Your task to perform on an android device: Clear the cart on newegg. Add "razer naga" to the cart on newegg, then select checkout. Image 0: 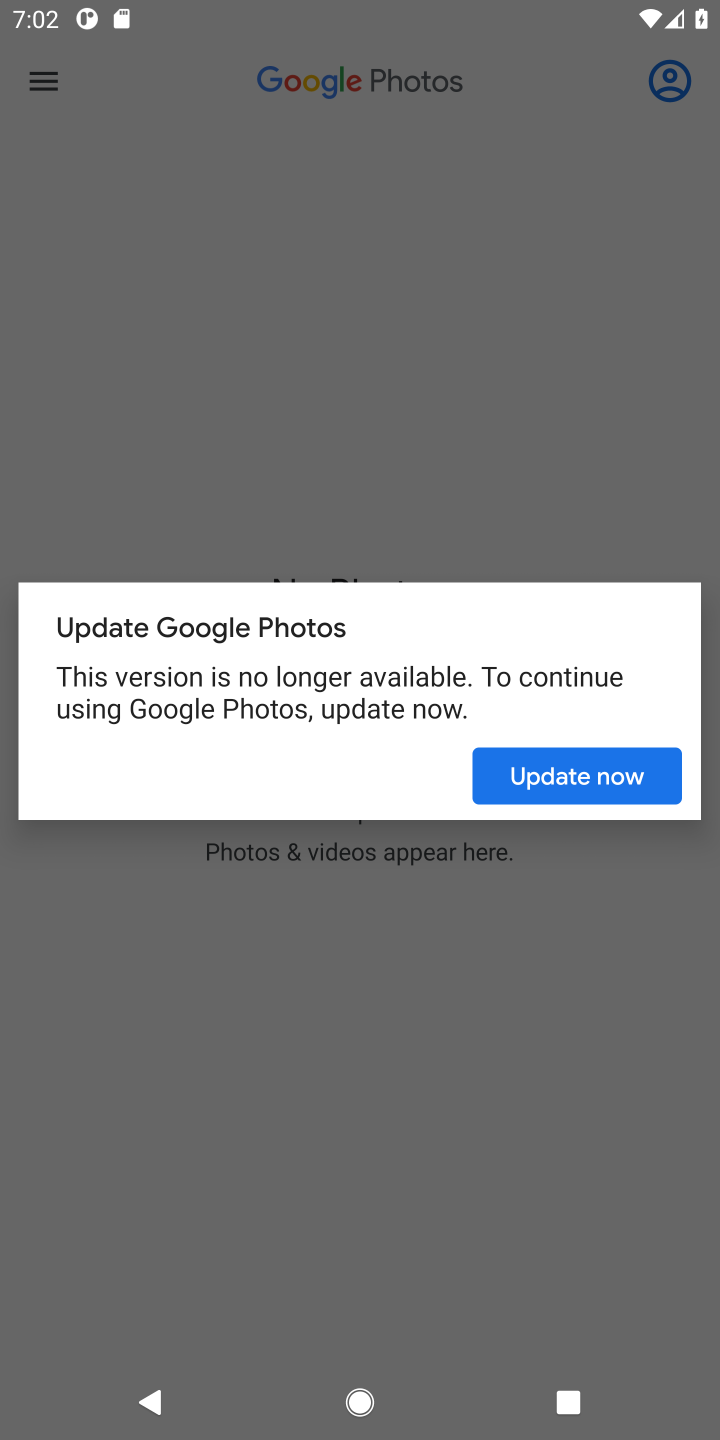
Step 0: press home button
Your task to perform on an android device: Clear the cart on newegg. Add "razer naga" to the cart on newegg, then select checkout. Image 1: 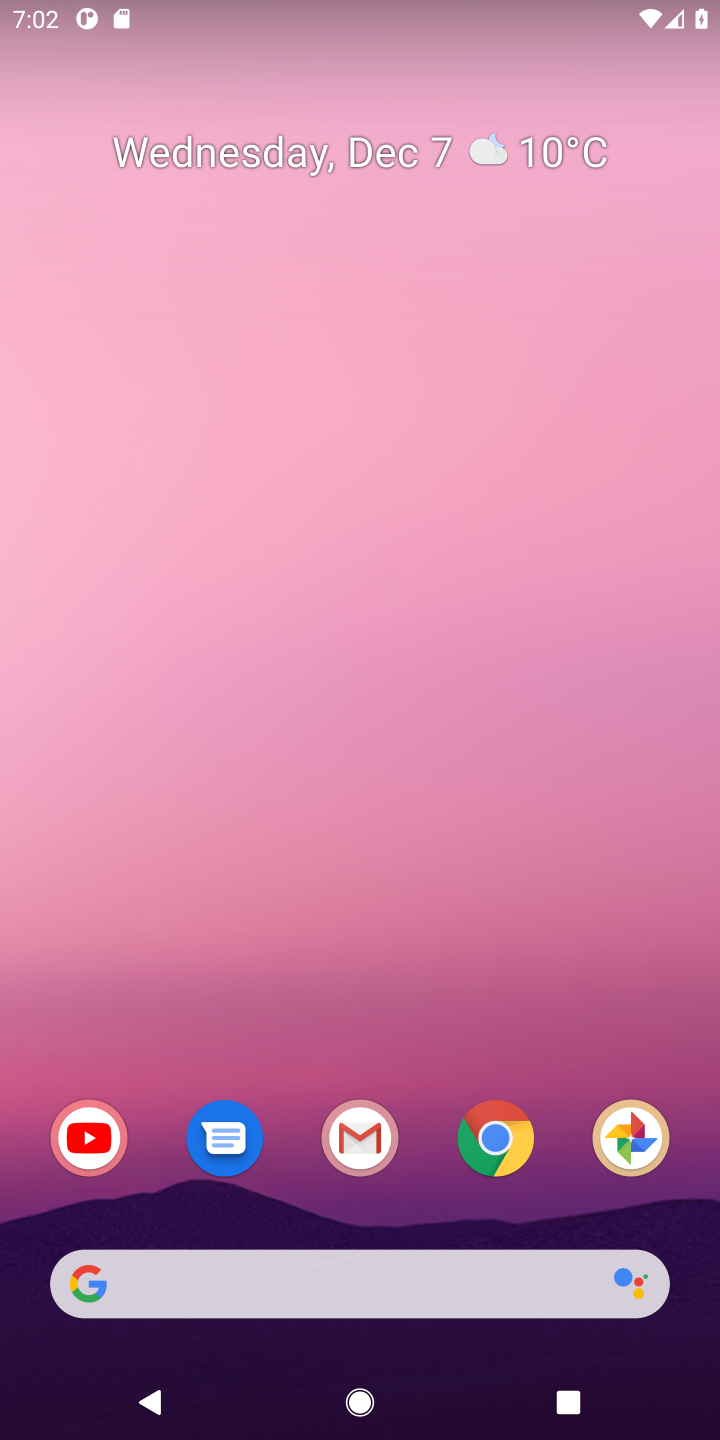
Step 1: click (141, 1275)
Your task to perform on an android device: Clear the cart on newegg. Add "razer naga" to the cart on newegg, then select checkout. Image 2: 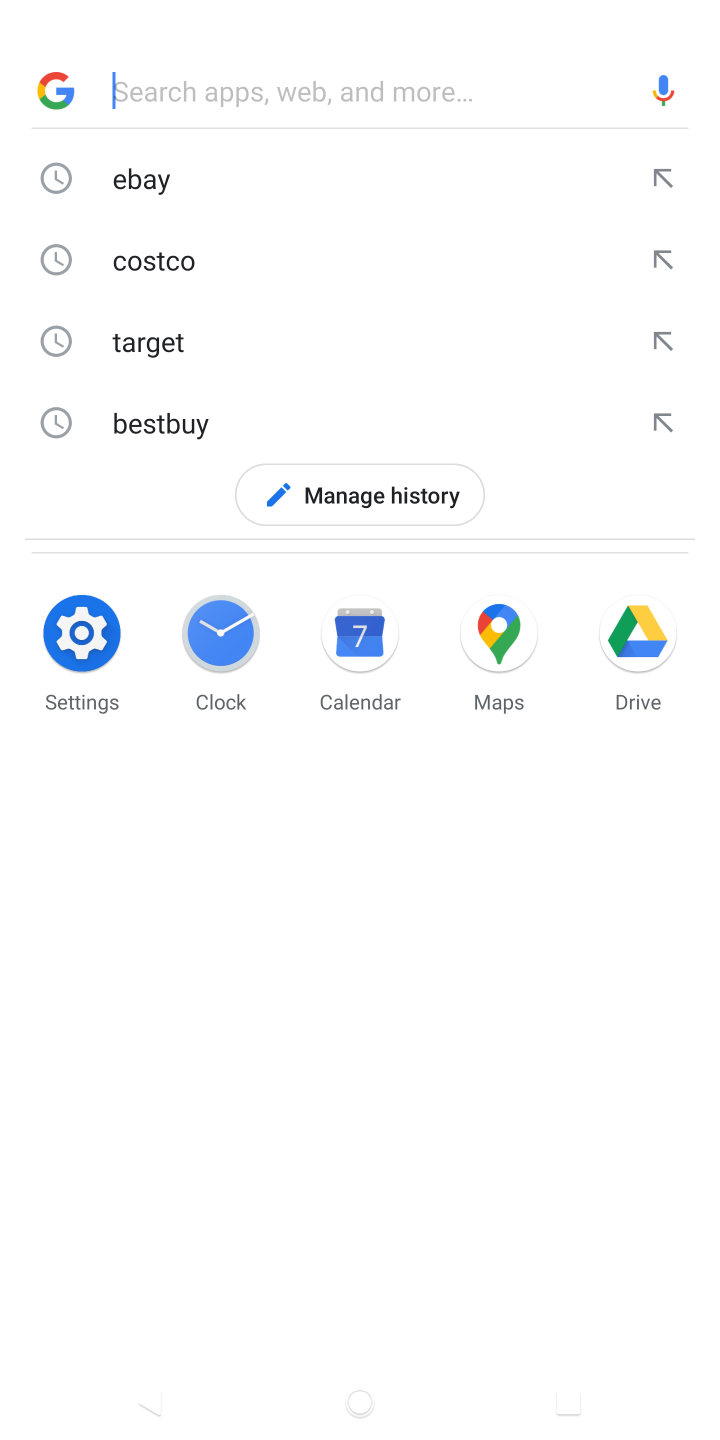
Step 2: click (141, 1275)
Your task to perform on an android device: Clear the cart on newegg. Add "razer naga" to the cart on newegg, then select checkout. Image 3: 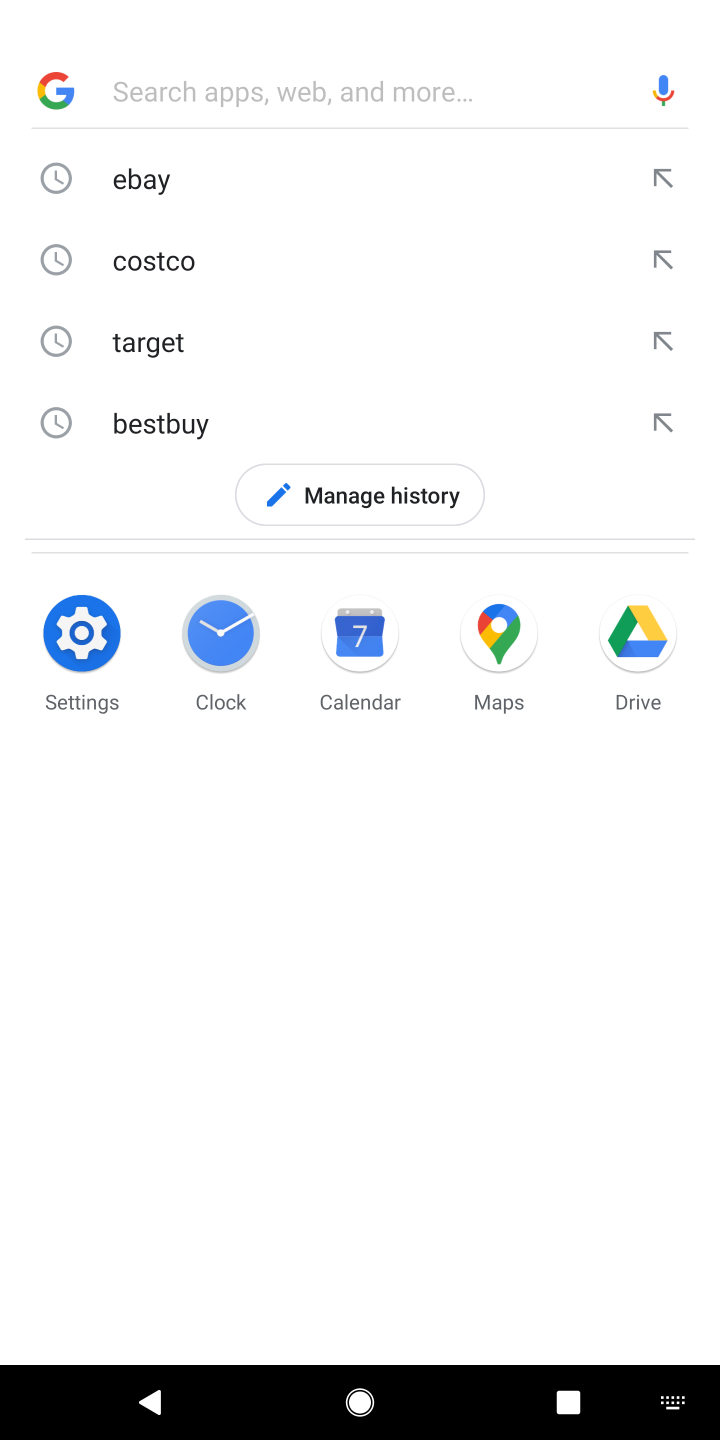
Step 3: press enter
Your task to perform on an android device: Clear the cart on newegg. Add "razer naga" to the cart on newegg, then select checkout. Image 4: 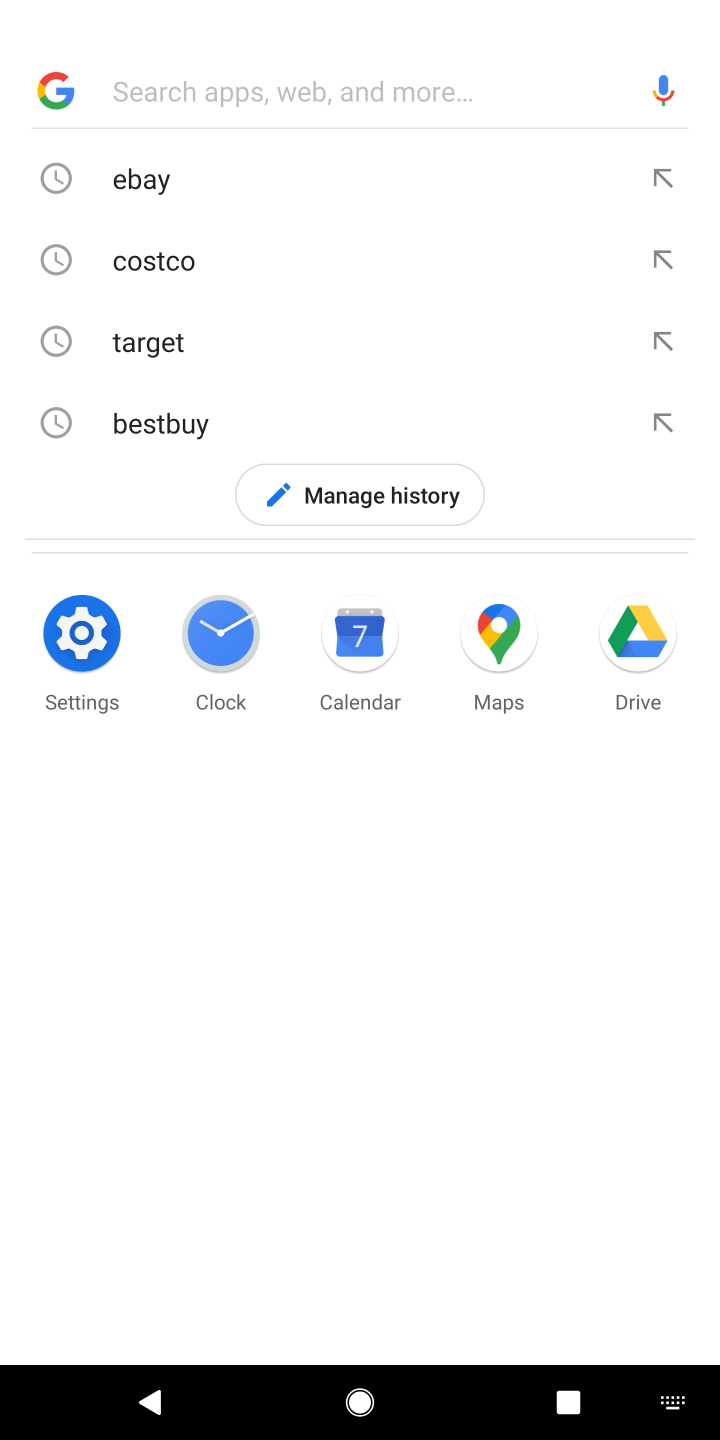
Step 4: type "newegg"
Your task to perform on an android device: Clear the cart on newegg. Add "razer naga" to the cart on newegg, then select checkout. Image 5: 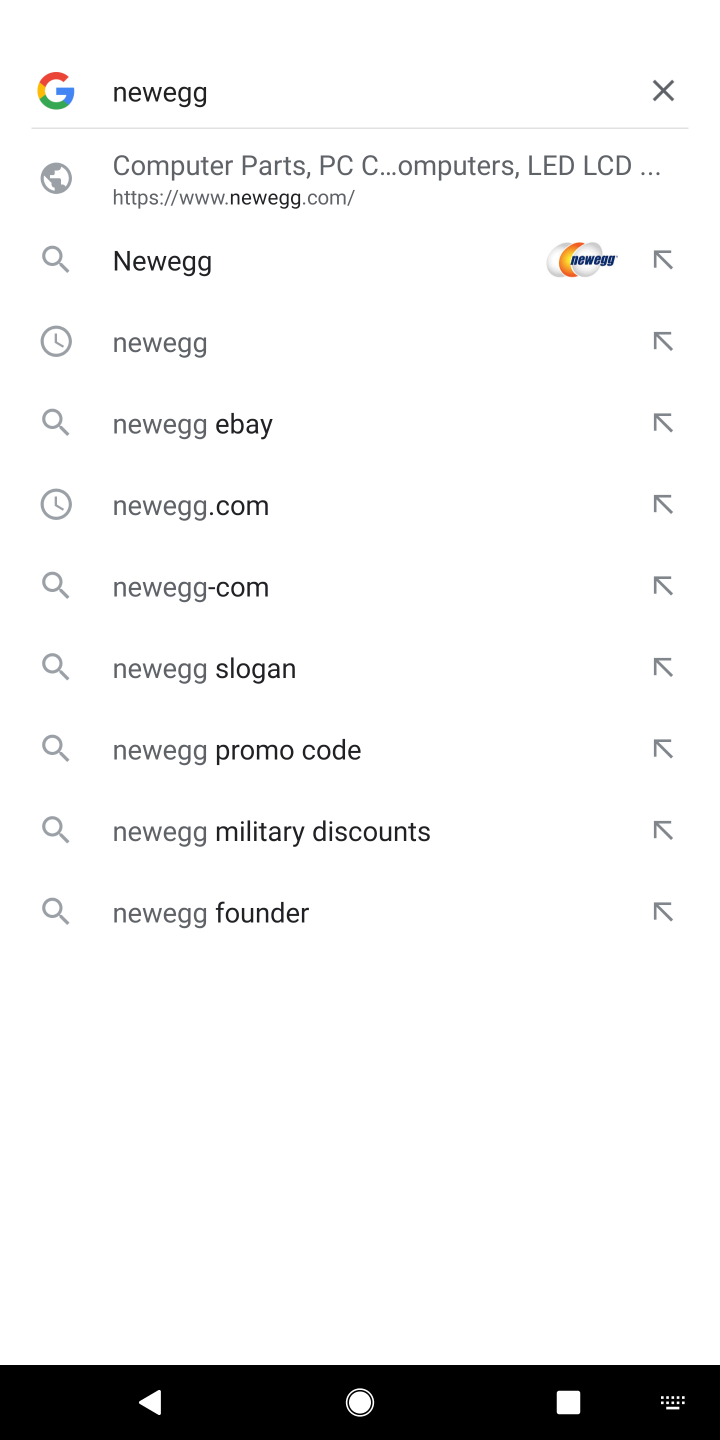
Step 5: press enter
Your task to perform on an android device: Clear the cart on newegg. Add "razer naga" to the cart on newegg, then select checkout. Image 6: 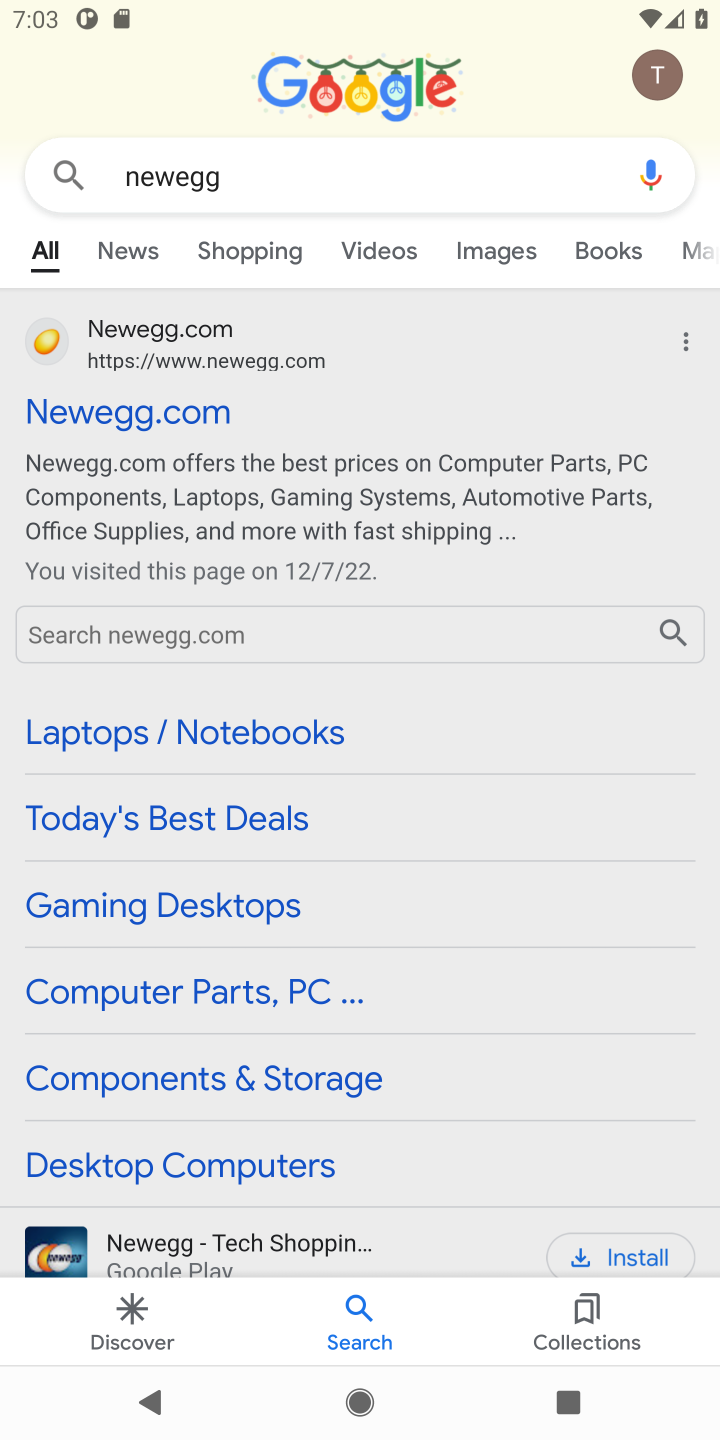
Step 6: click (99, 409)
Your task to perform on an android device: Clear the cart on newegg. Add "razer naga" to the cart on newegg, then select checkout. Image 7: 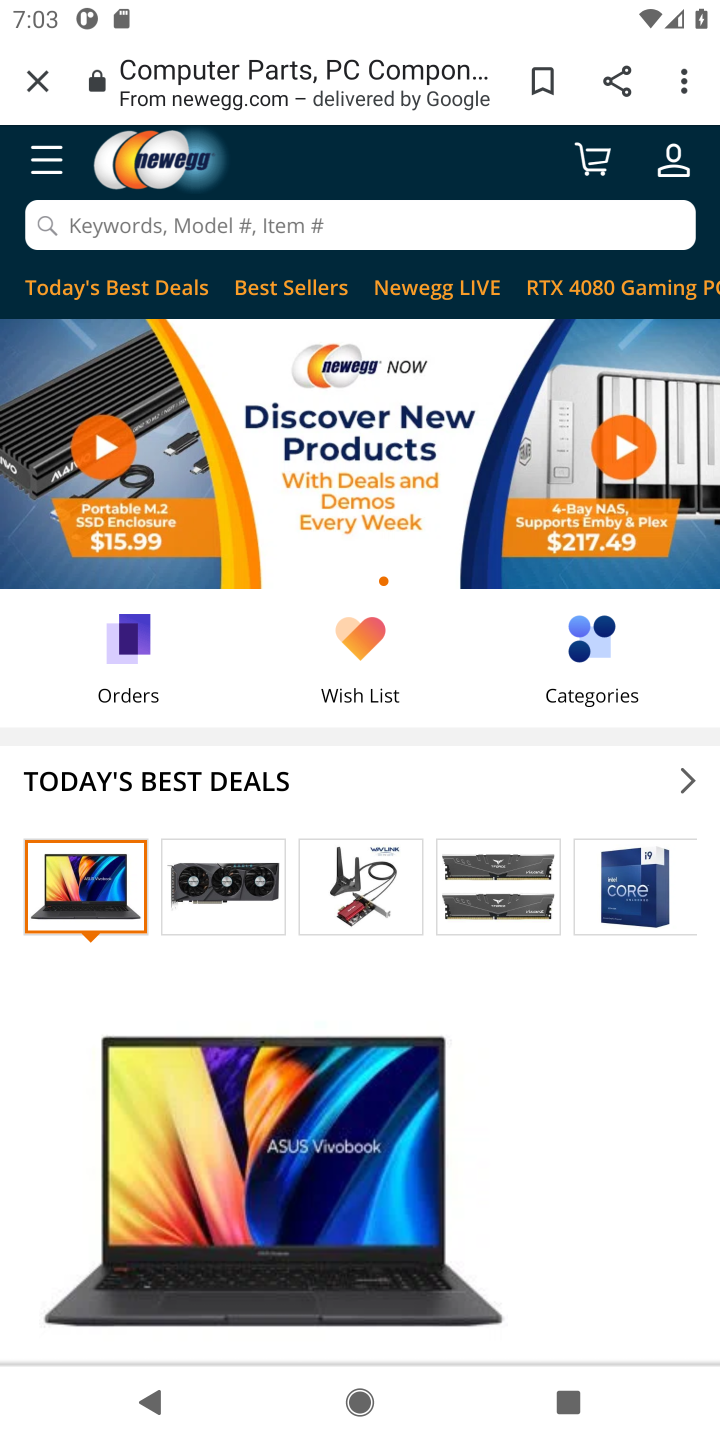
Step 7: click (582, 167)
Your task to perform on an android device: Clear the cart on newegg. Add "razer naga" to the cart on newegg, then select checkout. Image 8: 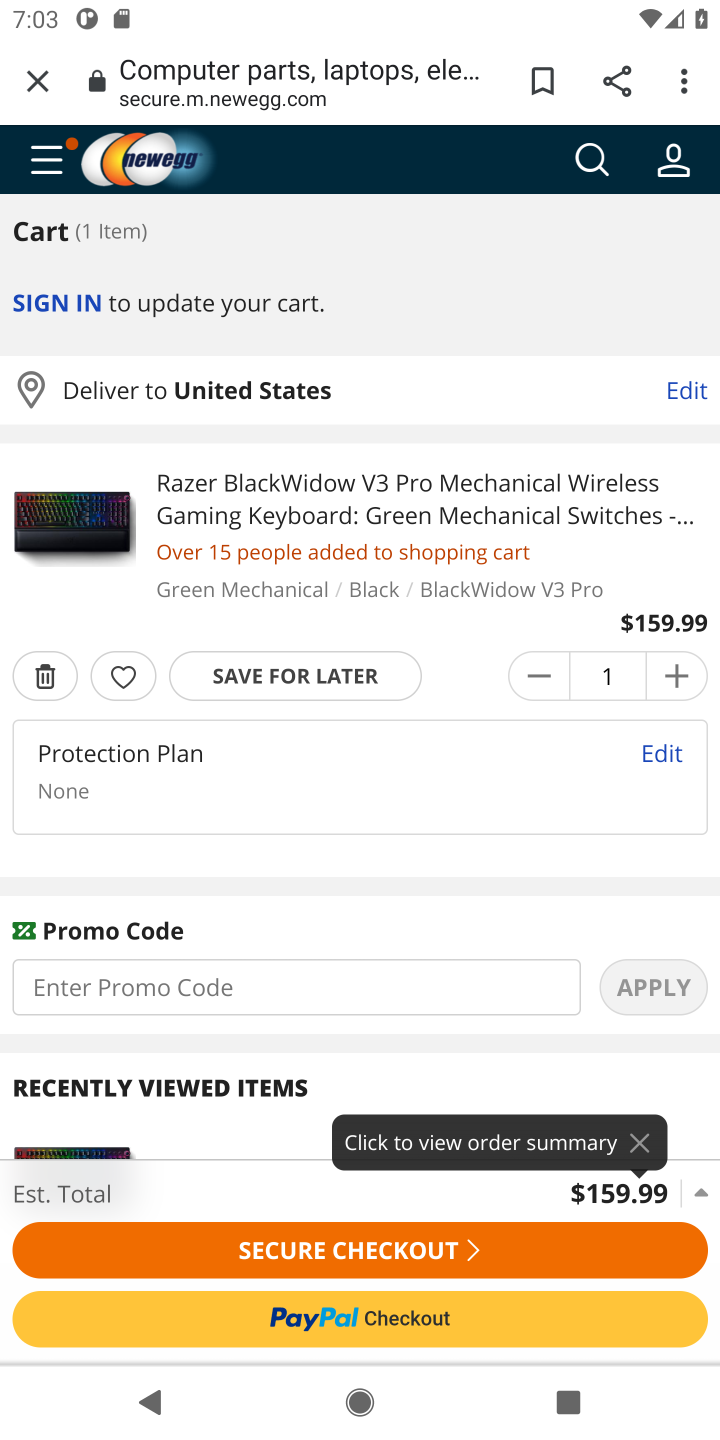
Step 8: drag from (265, 983) to (298, 607)
Your task to perform on an android device: Clear the cart on newegg. Add "razer naga" to the cart on newegg, then select checkout. Image 9: 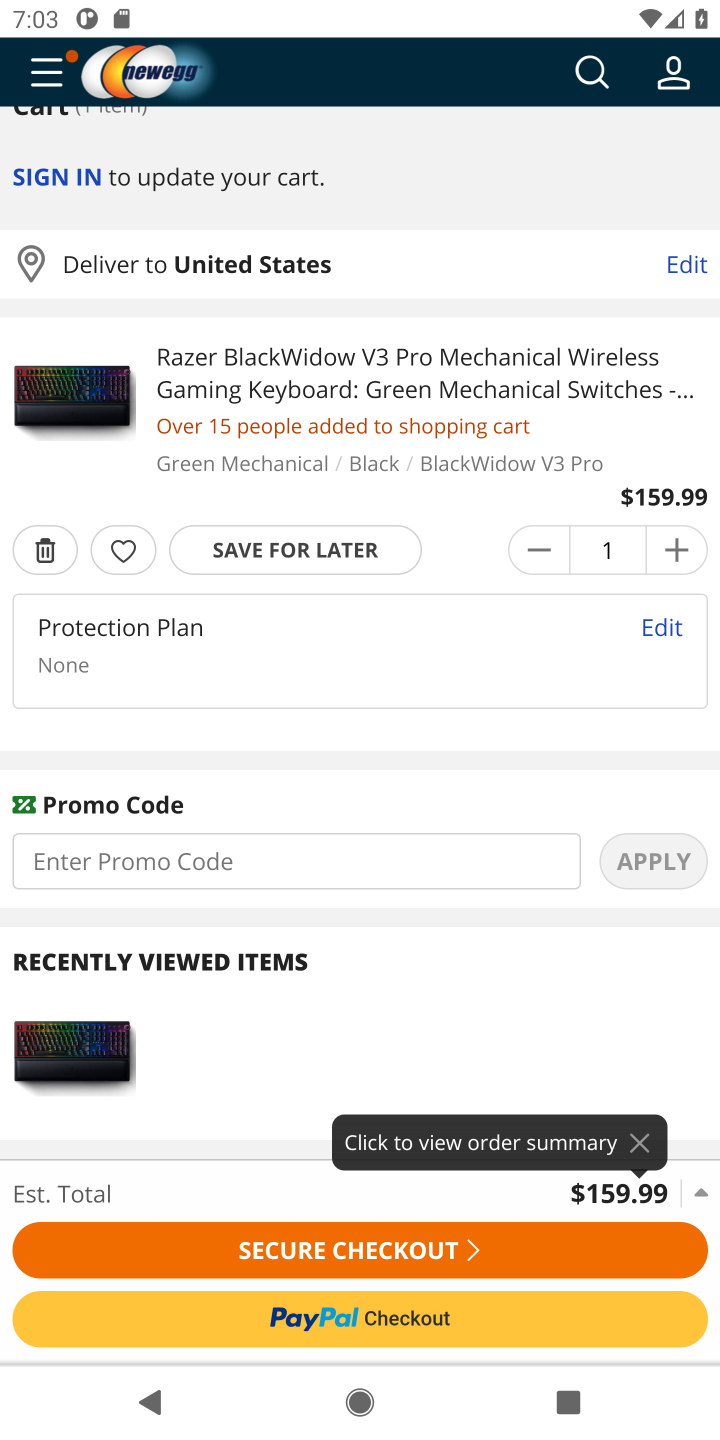
Step 9: drag from (276, 1044) to (276, 461)
Your task to perform on an android device: Clear the cart on newegg. Add "razer naga" to the cart on newegg, then select checkout. Image 10: 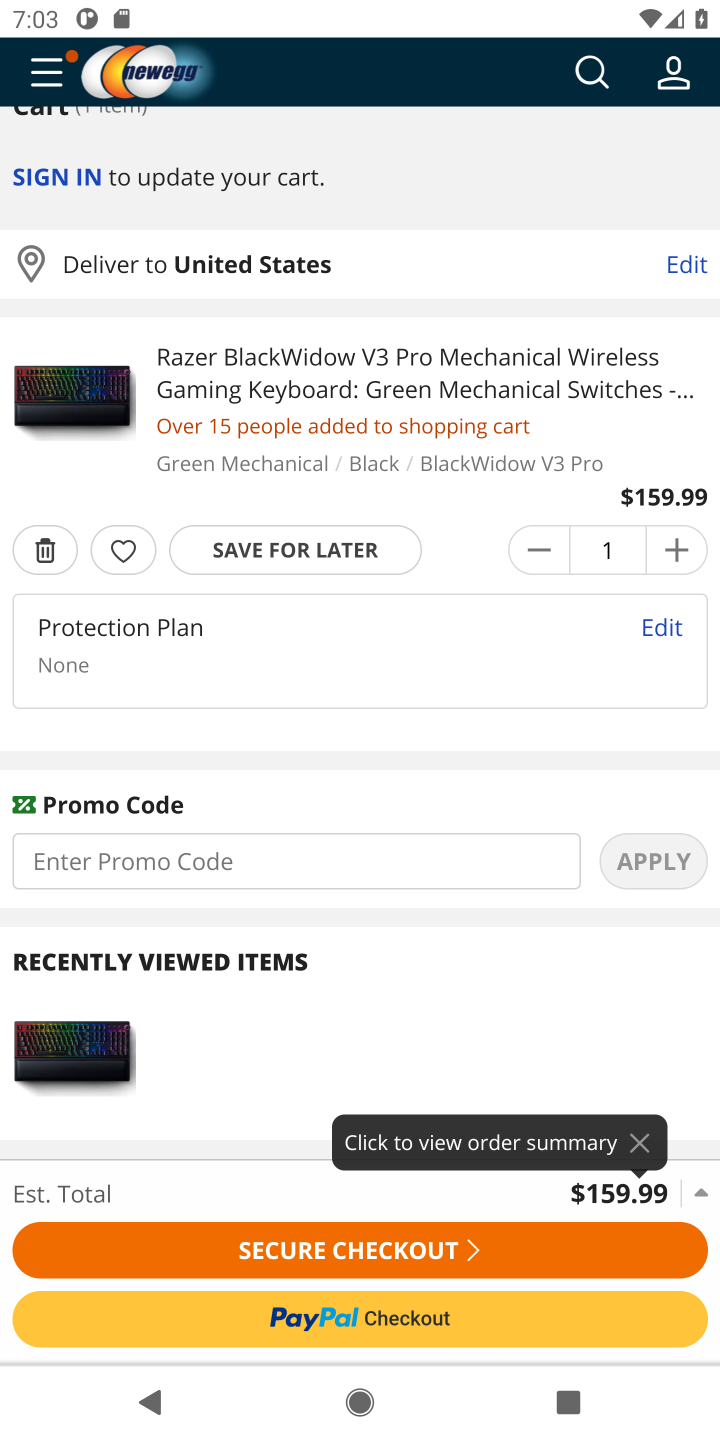
Step 10: click (44, 550)
Your task to perform on an android device: Clear the cart on newegg. Add "razer naga" to the cart on newegg, then select checkout. Image 11: 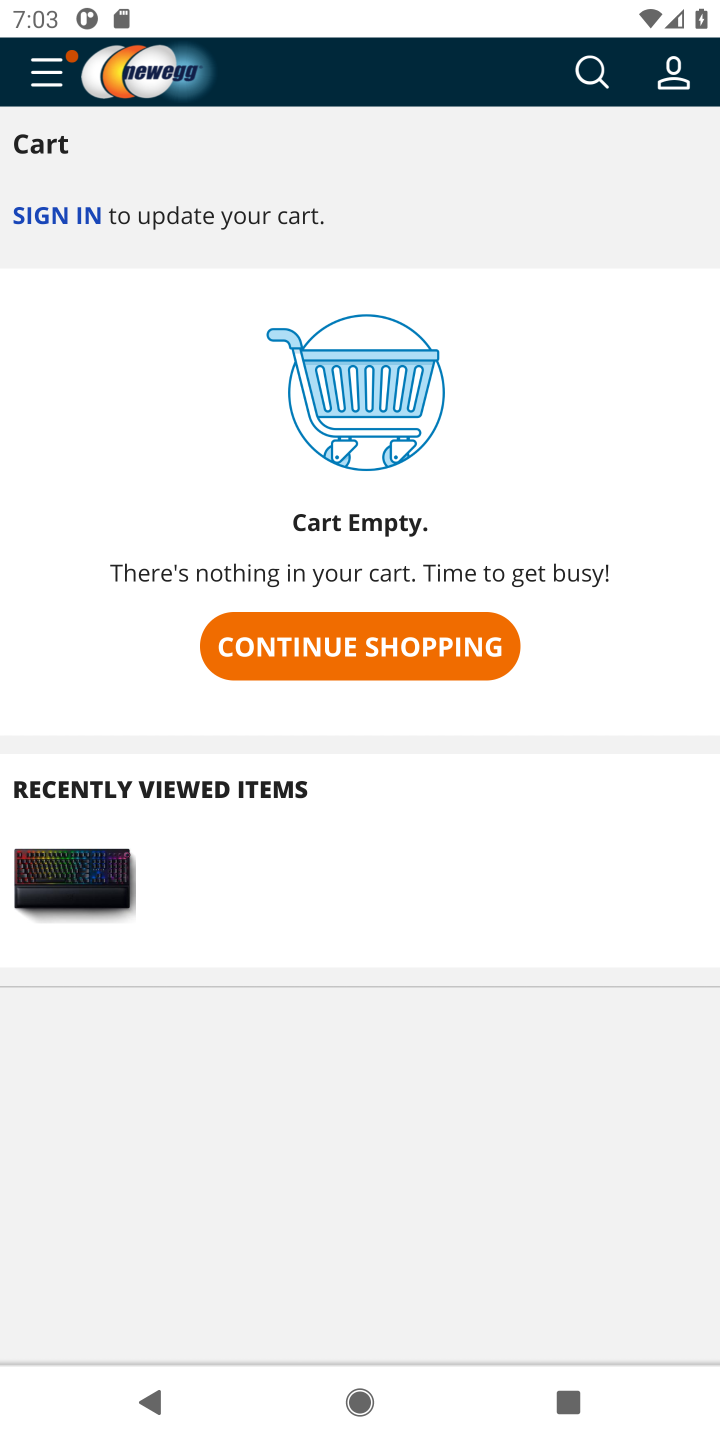
Step 11: click (593, 68)
Your task to perform on an android device: Clear the cart on newegg. Add "razer naga" to the cart on newegg, then select checkout. Image 12: 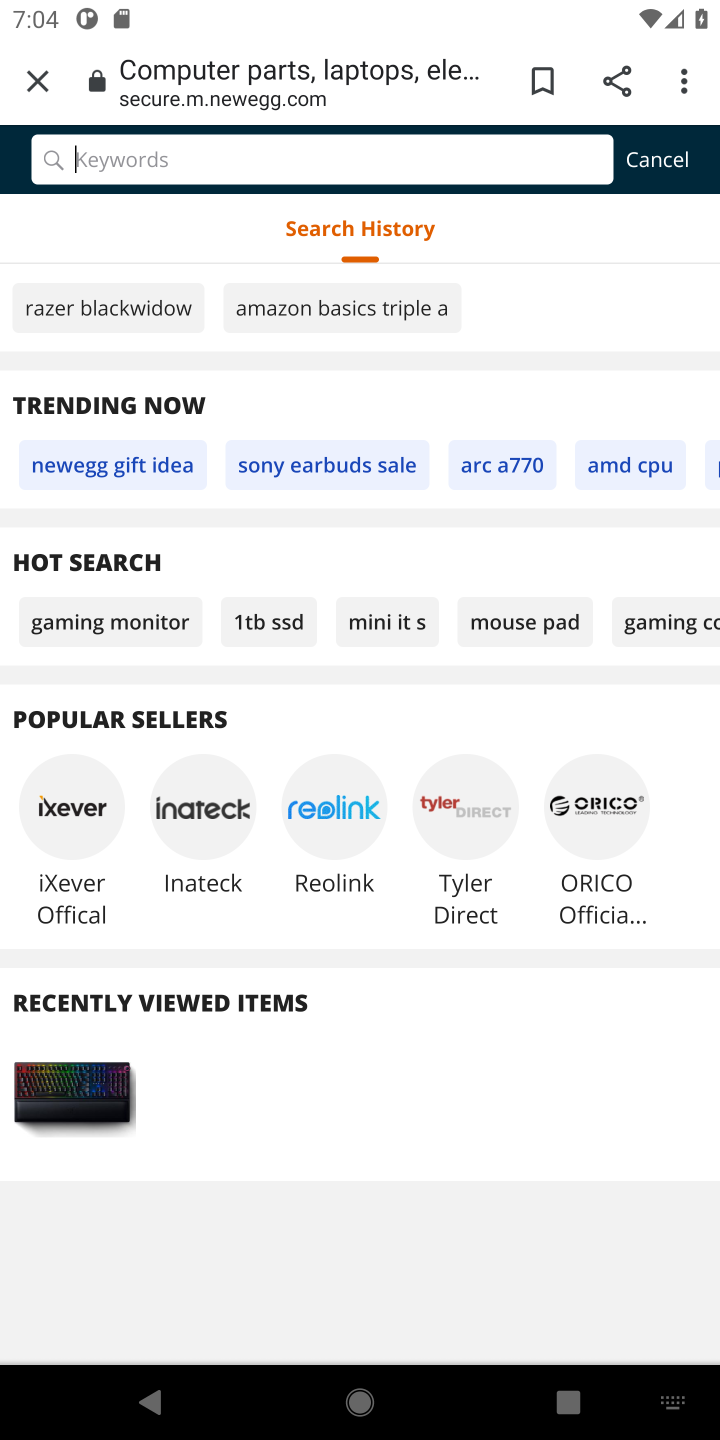
Step 12: type "razer naga"
Your task to perform on an android device: Clear the cart on newegg. Add "razer naga" to the cart on newegg, then select checkout. Image 13: 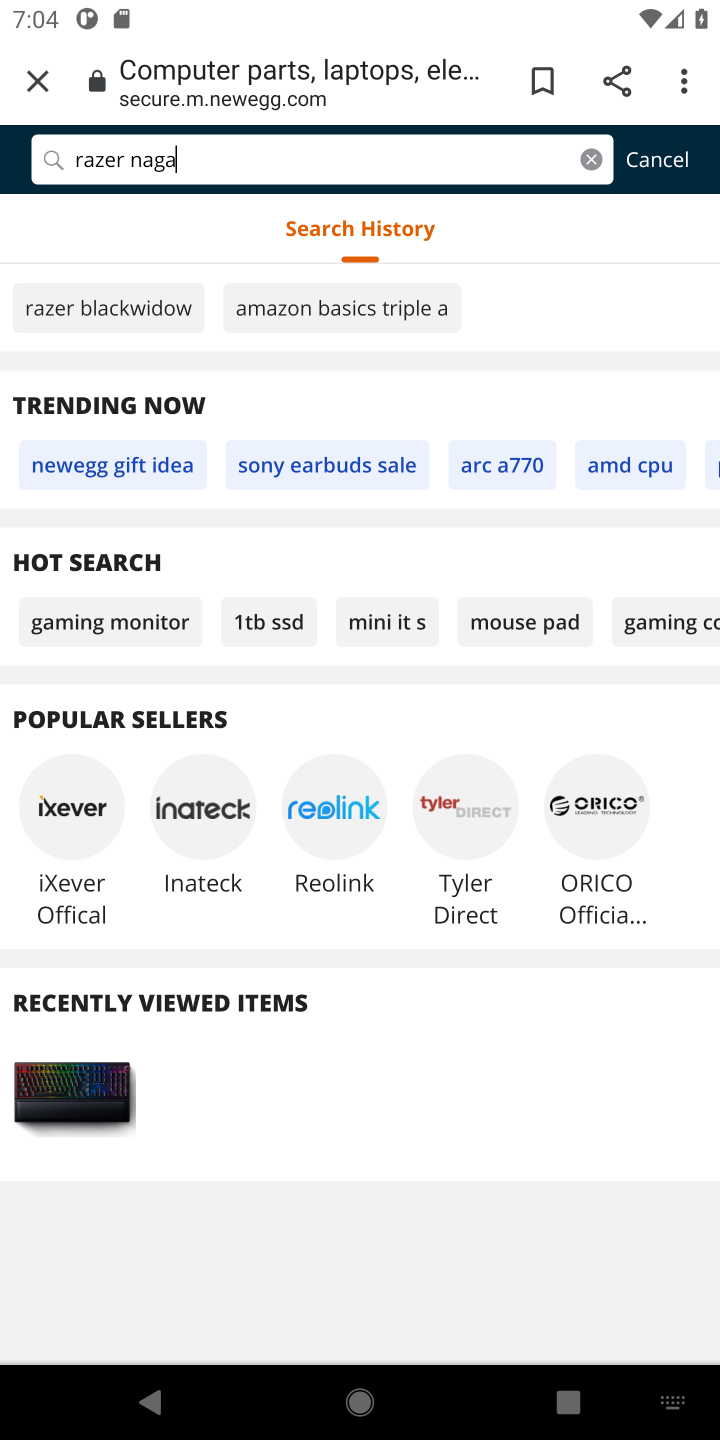
Step 13: press enter
Your task to perform on an android device: Clear the cart on newegg. Add "razer naga" to the cart on newegg, then select checkout. Image 14: 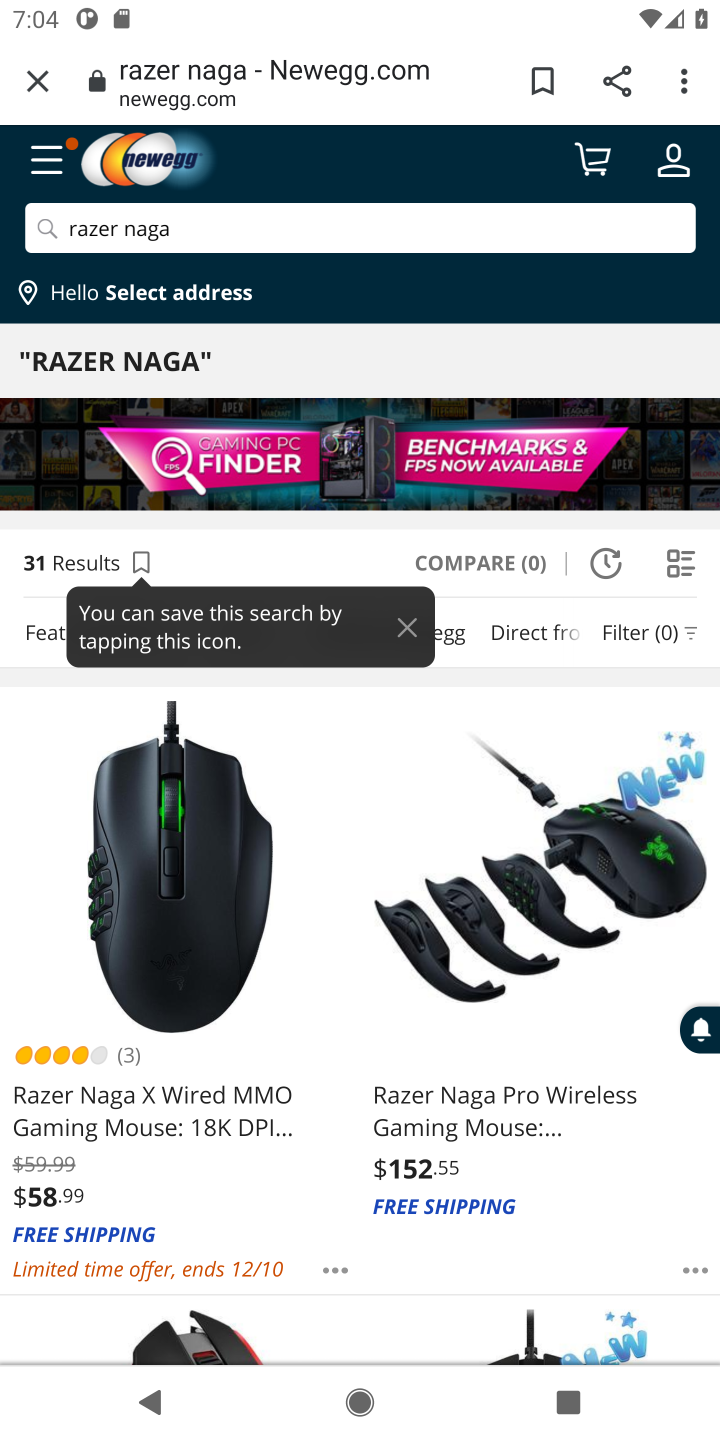
Step 14: click (126, 1125)
Your task to perform on an android device: Clear the cart on newegg. Add "razer naga" to the cart on newegg, then select checkout. Image 15: 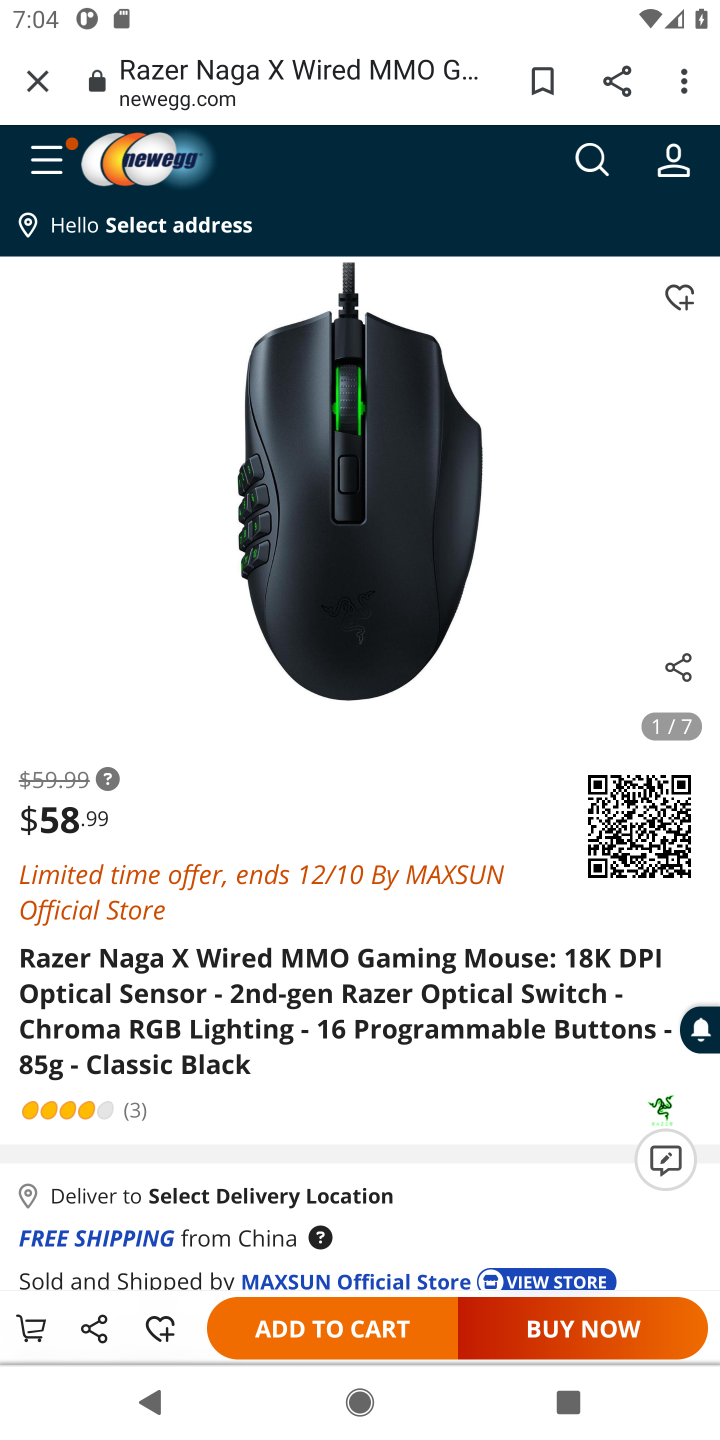
Step 15: click (297, 1343)
Your task to perform on an android device: Clear the cart on newegg. Add "razer naga" to the cart on newegg, then select checkout. Image 16: 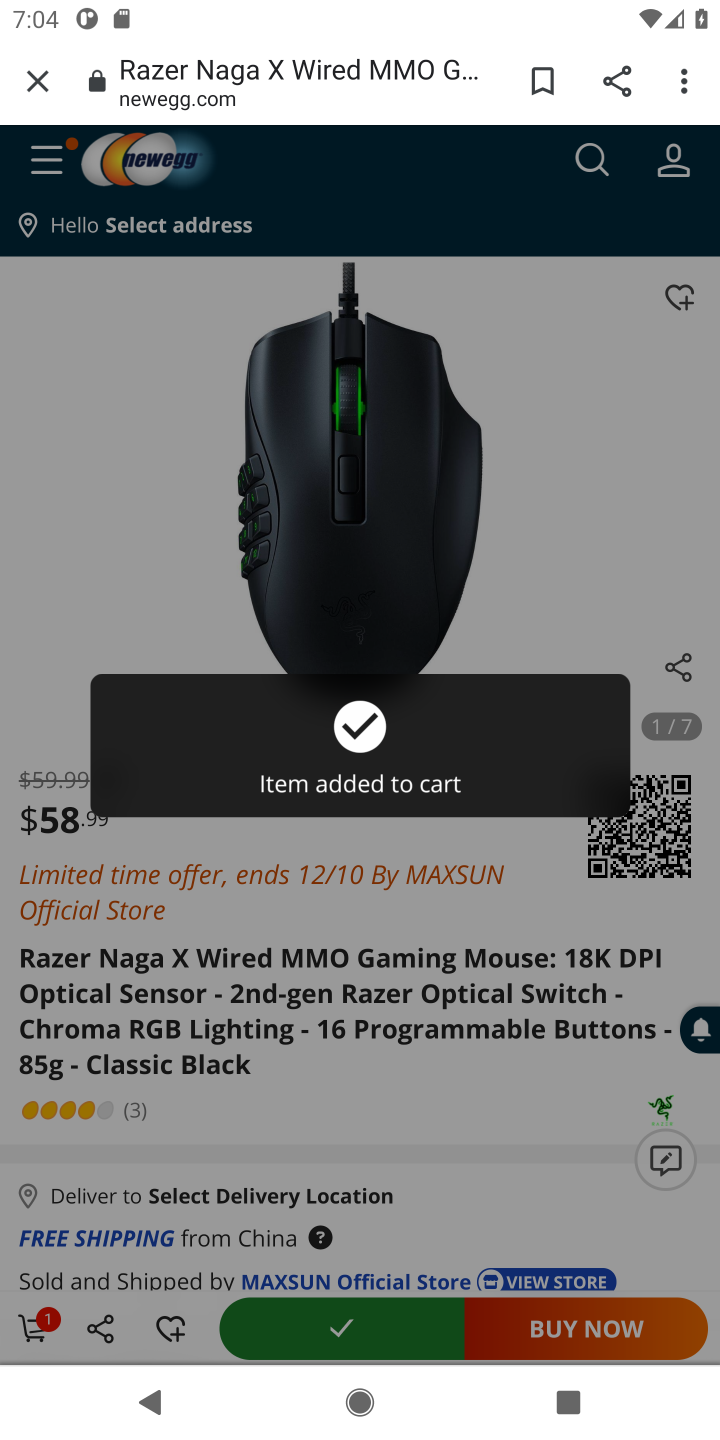
Step 16: click (318, 1327)
Your task to perform on an android device: Clear the cart on newegg. Add "razer naga" to the cart on newegg, then select checkout. Image 17: 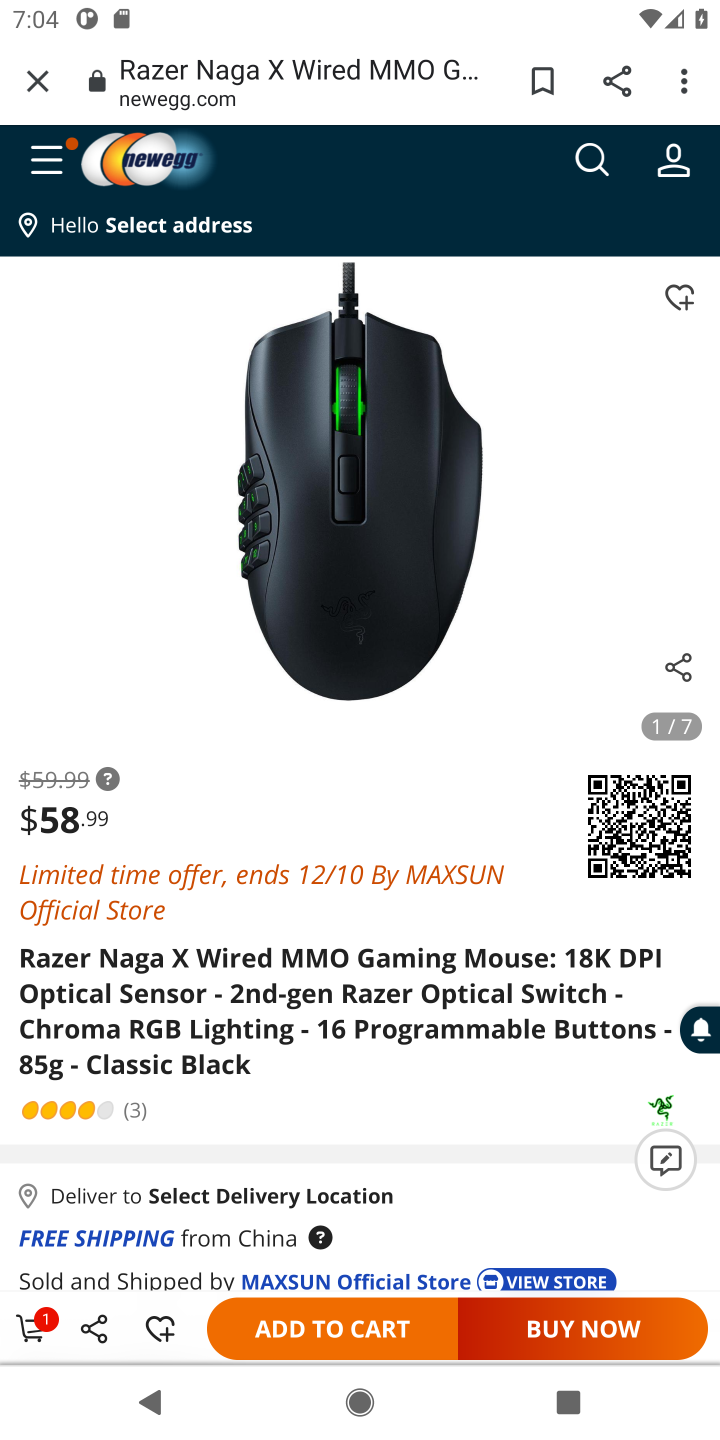
Step 17: click (182, 1317)
Your task to perform on an android device: Clear the cart on newegg. Add "razer naga" to the cart on newegg, then select checkout. Image 18: 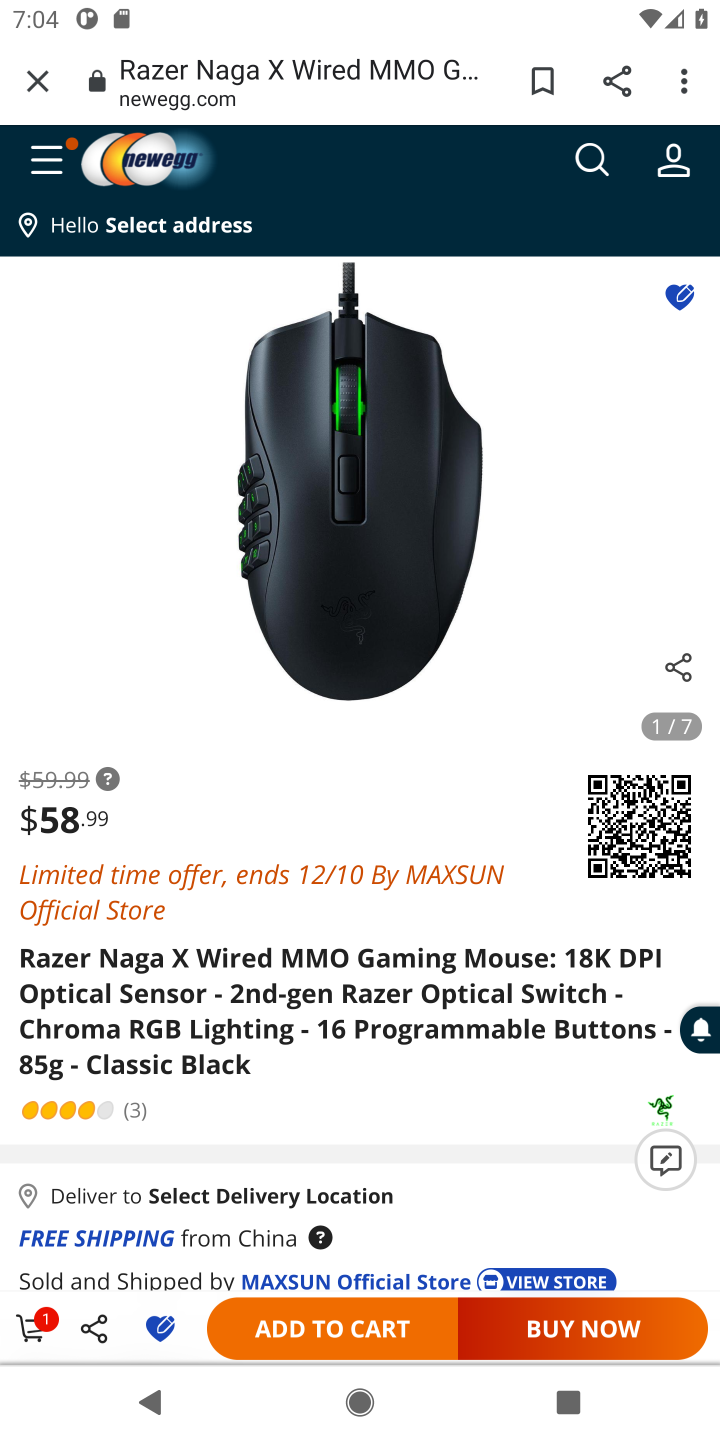
Step 18: click (29, 1324)
Your task to perform on an android device: Clear the cart on newegg. Add "razer naga" to the cart on newegg, then select checkout. Image 19: 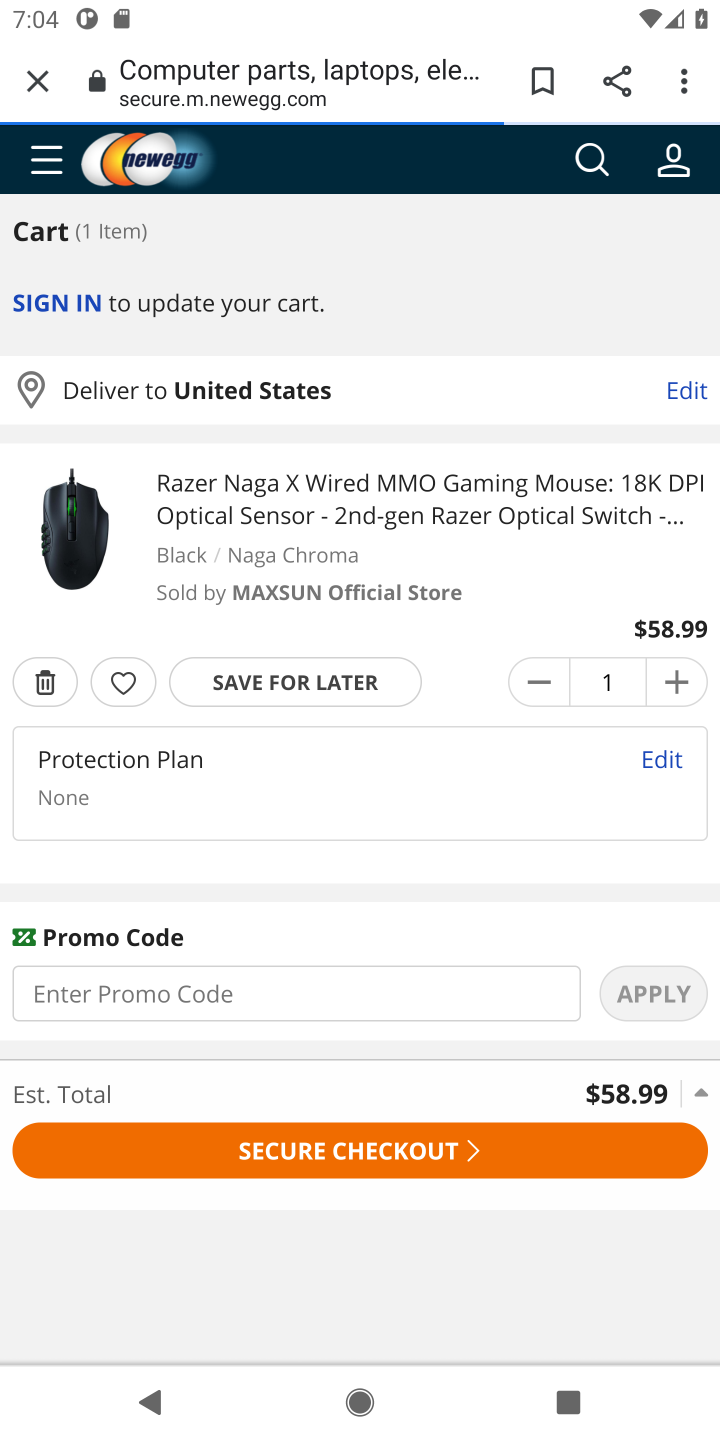
Step 19: click (26, 1318)
Your task to perform on an android device: Clear the cart on newegg. Add "razer naga" to the cart on newegg, then select checkout. Image 20: 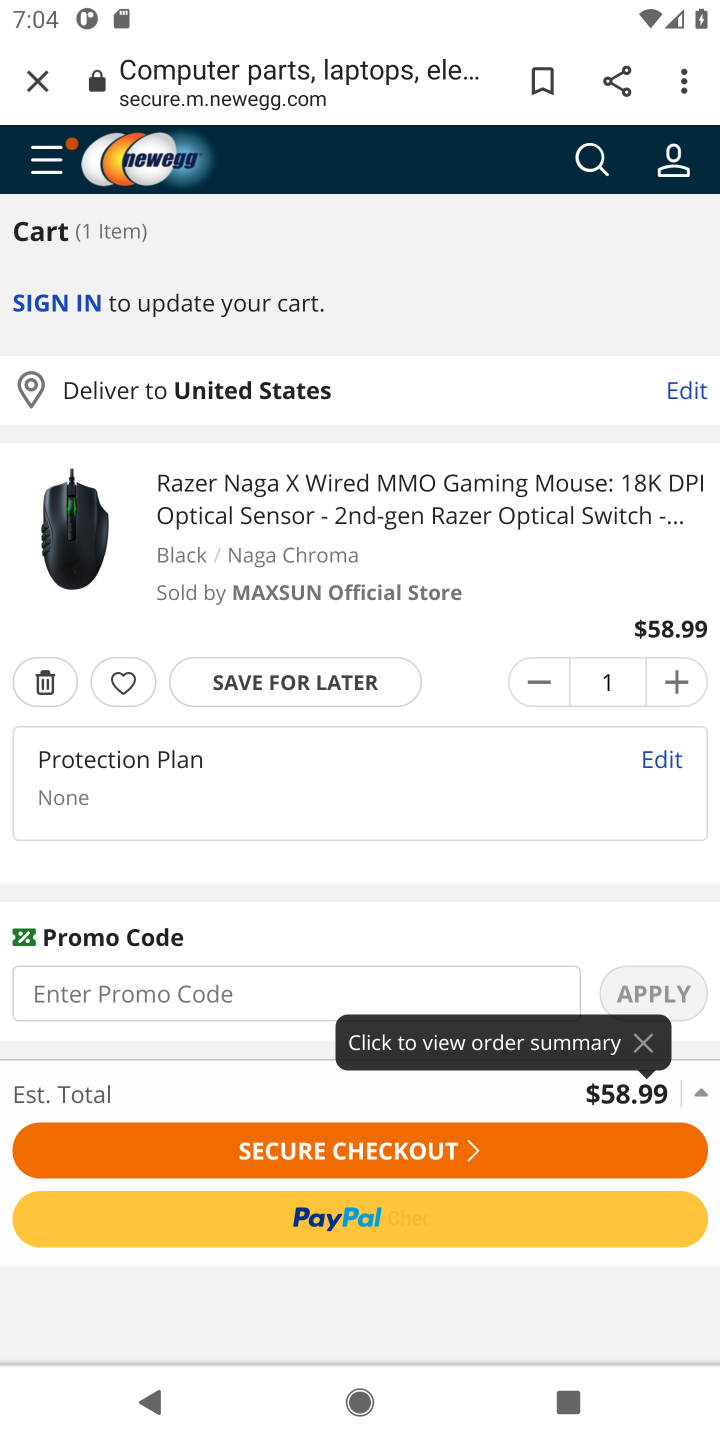
Step 20: click (365, 1152)
Your task to perform on an android device: Clear the cart on newegg. Add "razer naga" to the cart on newegg, then select checkout. Image 21: 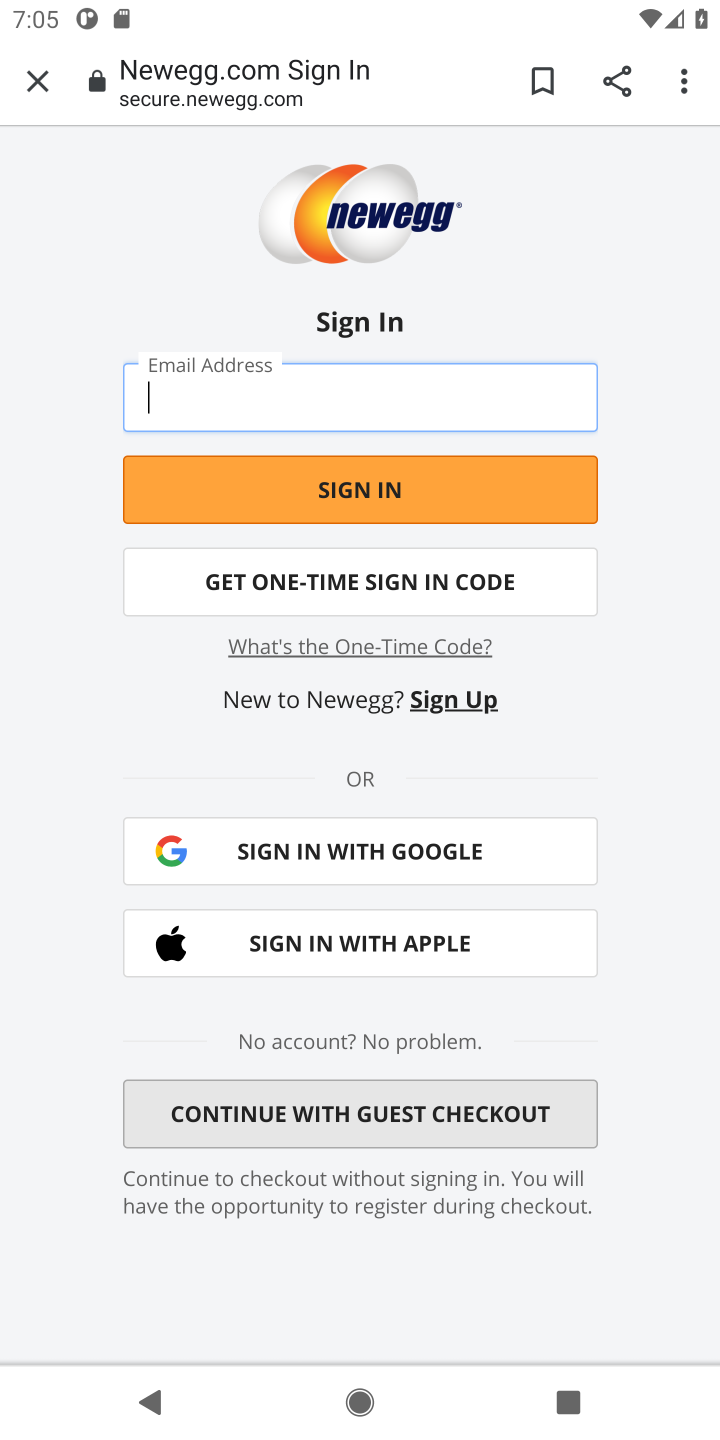
Step 21: task complete